Your task to perform on an android device: Open Youtube and go to the subscriptions tab Image 0: 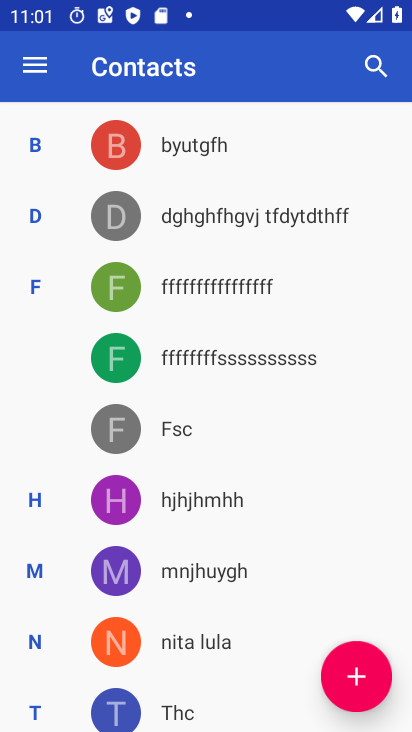
Step 0: press home button
Your task to perform on an android device: Open Youtube and go to the subscriptions tab Image 1: 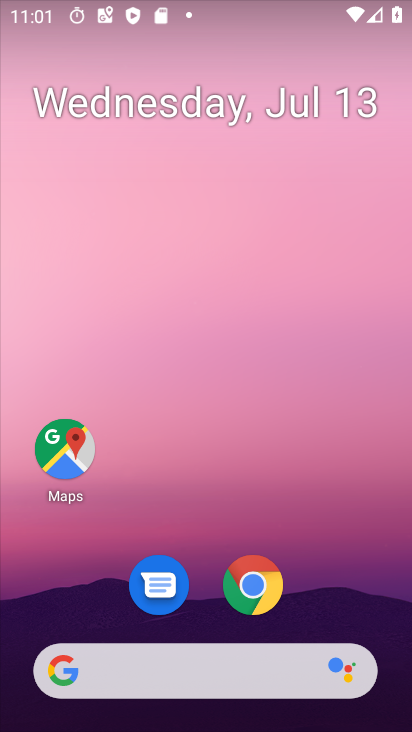
Step 1: drag from (313, 595) to (307, 17)
Your task to perform on an android device: Open Youtube and go to the subscriptions tab Image 2: 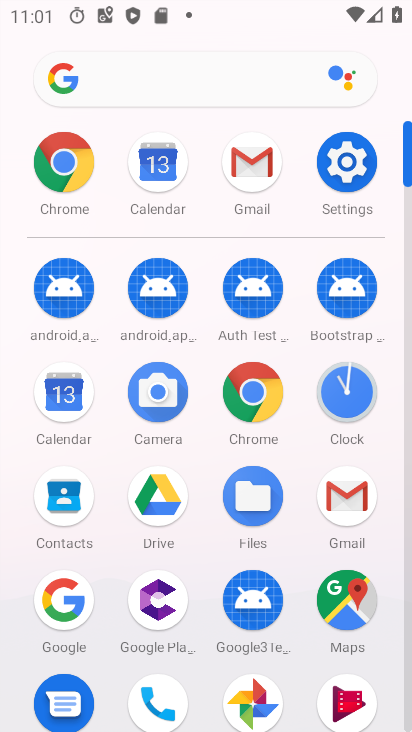
Step 2: drag from (215, 557) to (192, 105)
Your task to perform on an android device: Open Youtube and go to the subscriptions tab Image 3: 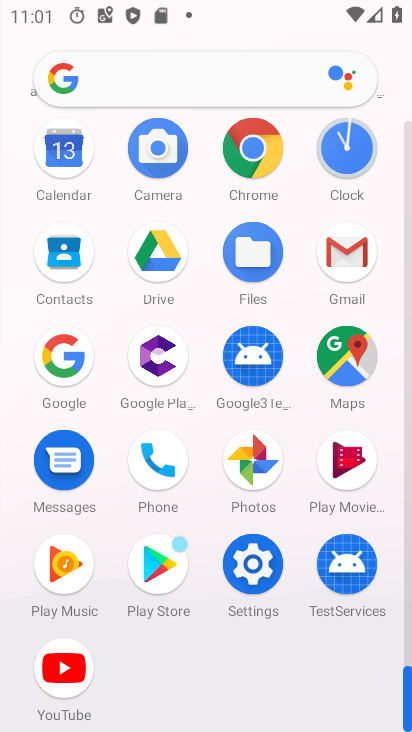
Step 3: click (67, 670)
Your task to perform on an android device: Open Youtube and go to the subscriptions tab Image 4: 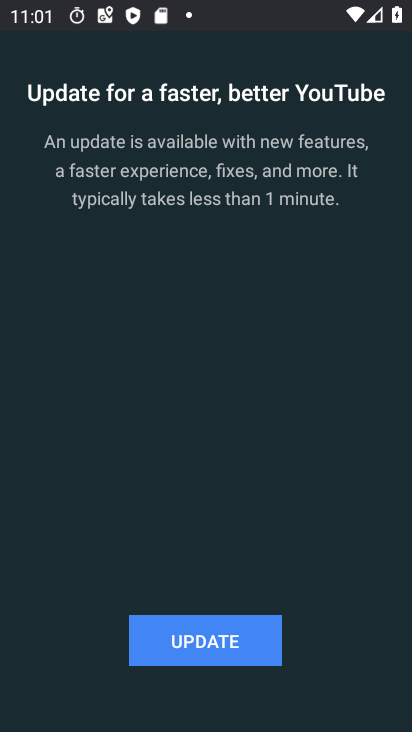
Step 4: click (153, 626)
Your task to perform on an android device: Open Youtube and go to the subscriptions tab Image 5: 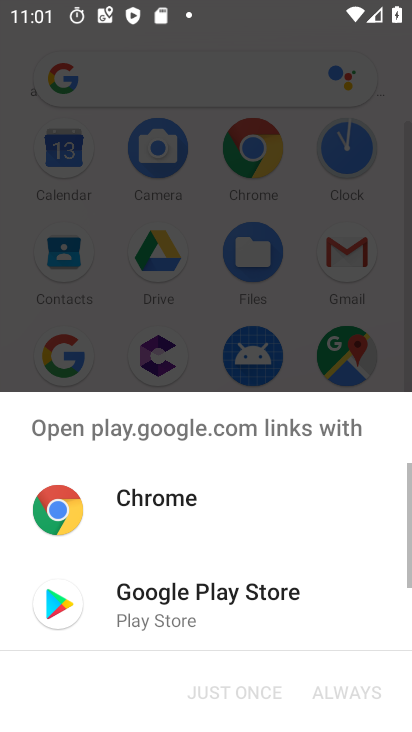
Step 5: click (155, 599)
Your task to perform on an android device: Open Youtube and go to the subscriptions tab Image 6: 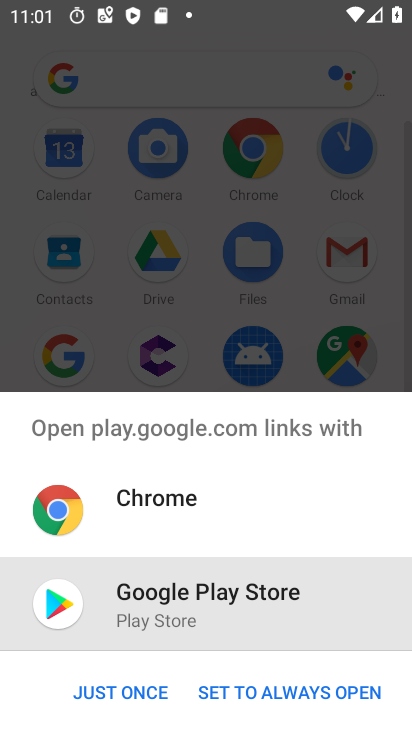
Step 6: click (126, 689)
Your task to perform on an android device: Open Youtube and go to the subscriptions tab Image 7: 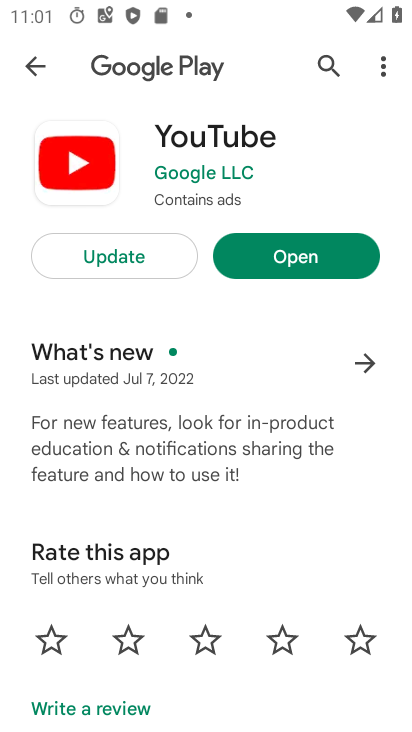
Step 7: click (176, 255)
Your task to perform on an android device: Open Youtube and go to the subscriptions tab Image 8: 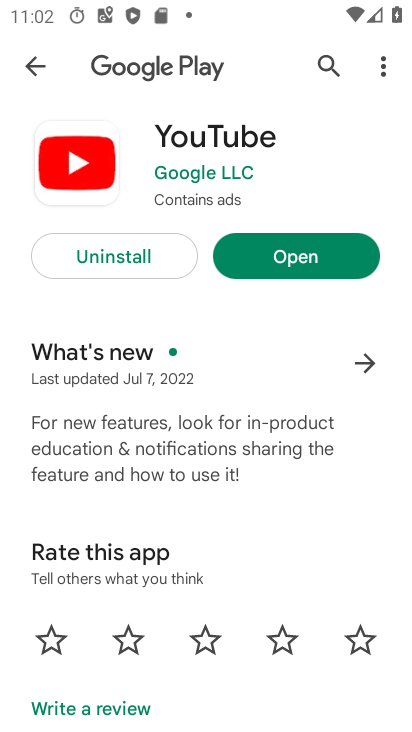
Step 8: click (319, 255)
Your task to perform on an android device: Open Youtube and go to the subscriptions tab Image 9: 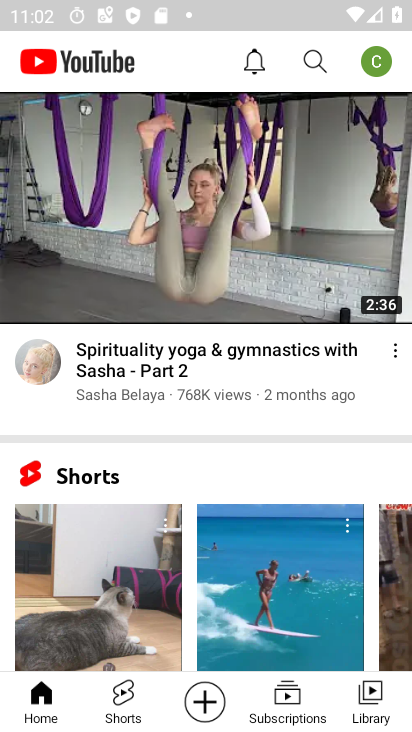
Step 9: click (297, 712)
Your task to perform on an android device: Open Youtube and go to the subscriptions tab Image 10: 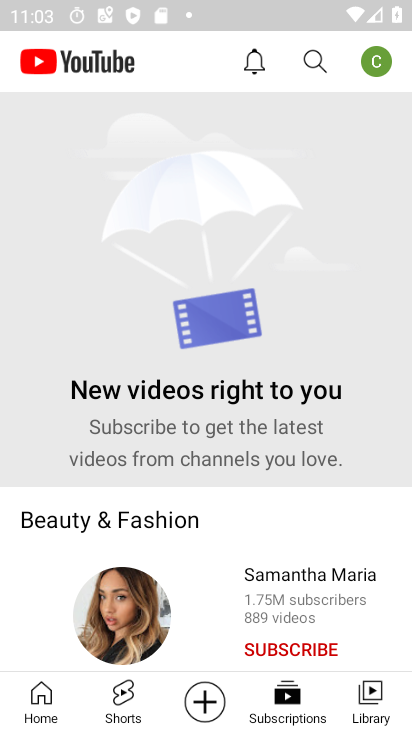
Step 10: task complete